Your task to perform on an android device: turn off javascript in the chrome app Image 0: 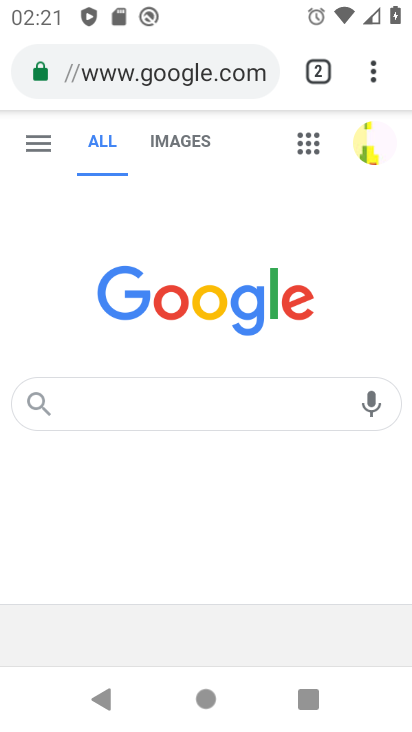
Step 0: click (378, 87)
Your task to perform on an android device: turn off javascript in the chrome app Image 1: 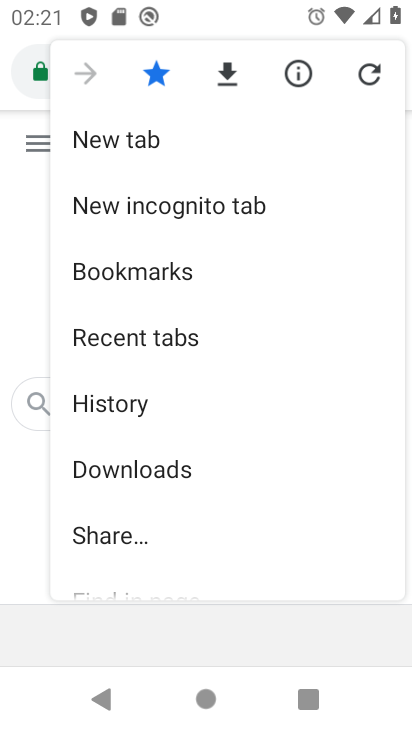
Step 1: drag from (231, 473) to (185, 262)
Your task to perform on an android device: turn off javascript in the chrome app Image 2: 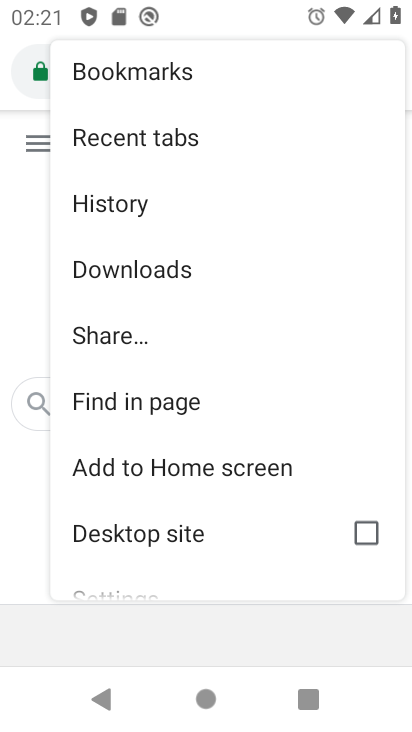
Step 2: click (206, 571)
Your task to perform on an android device: turn off javascript in the chrome app Image 3: 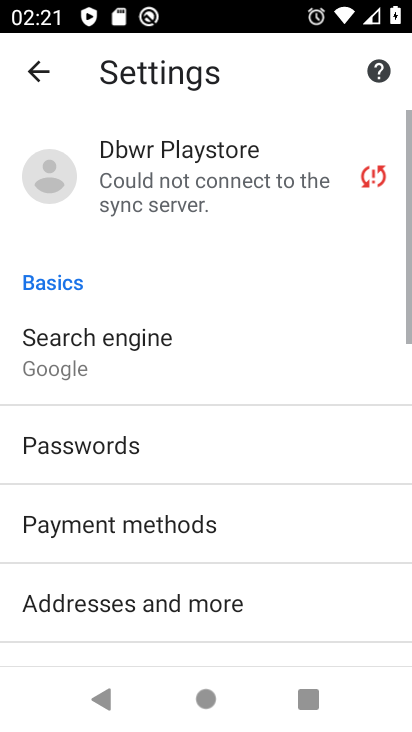
Step 3: drag from (267, 630) to (206, 71)
Your task to perform on an android device: turn off javascript in the chrome app Image 4: 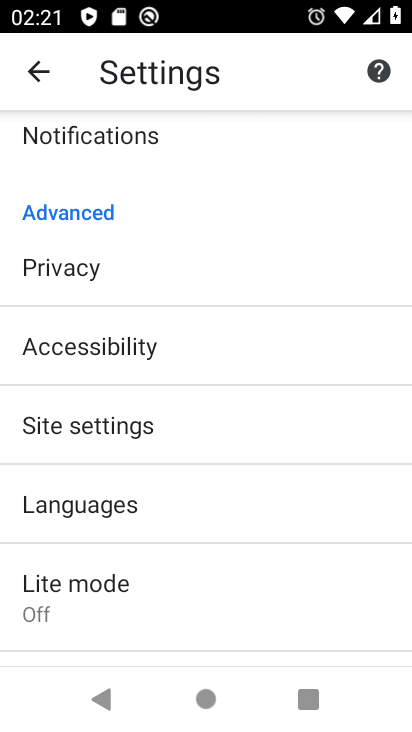
Step 4: click (212, 426)
Your task to perform on an android device: turn off javascript in the chrome app Image 5: 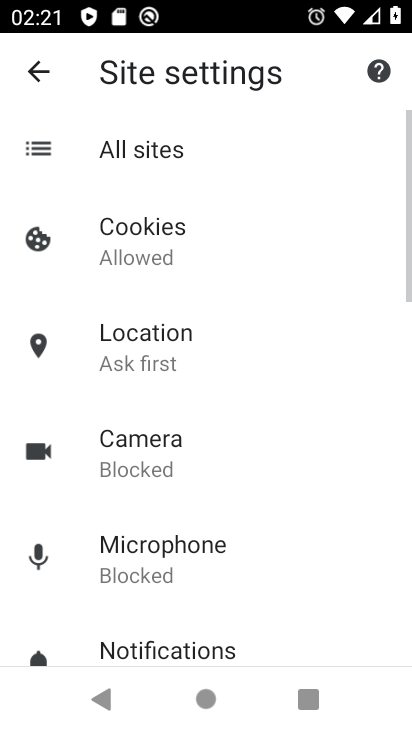
Step 5: drag from (263, 636) to (211, 295)
Your task to perform on an android device: turn off javascript in the chrome app Image 6: 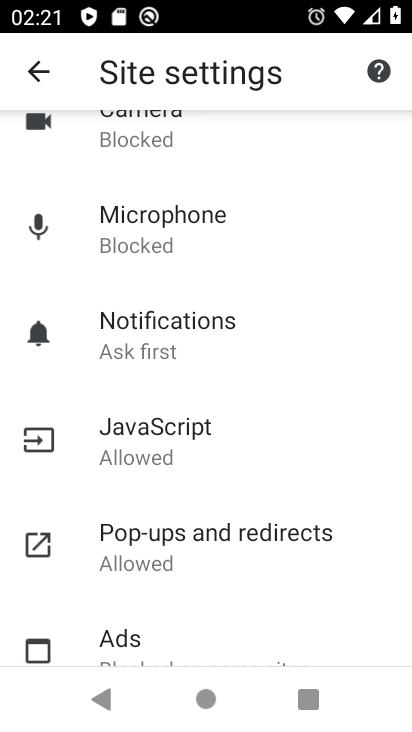
Step 6: click (203, 415)
Your task to perform on an android device: turn off javascript in the chrome app Image 7: 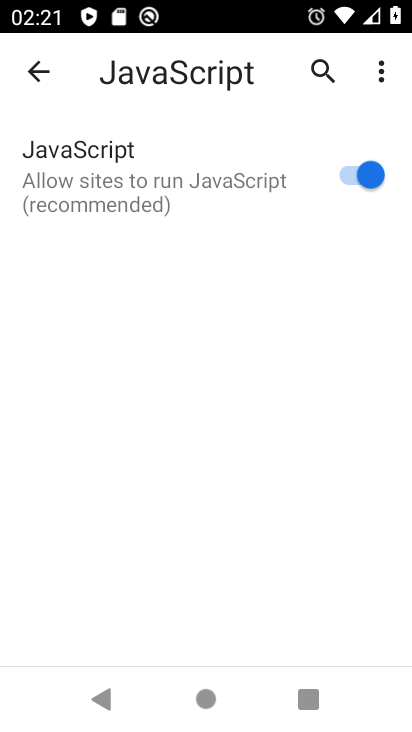
Step 7: click (379, 185)
Your task to perform on an android device: turn off javascript in the chrome app Image 8: 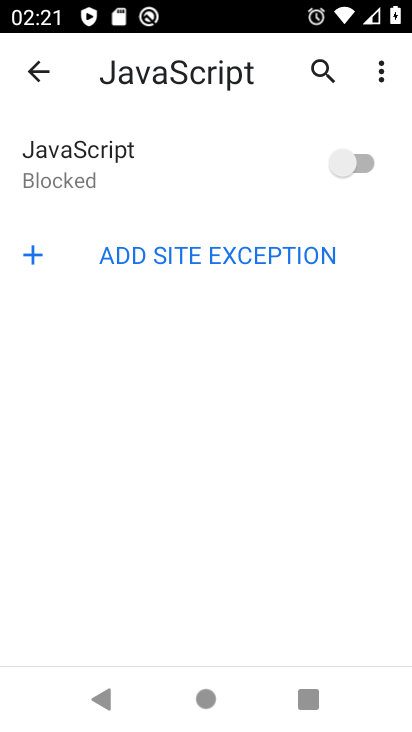
Step 8: task complete